Your task to perform on an android device: What's the weather going to be tomorrow? Image 0: 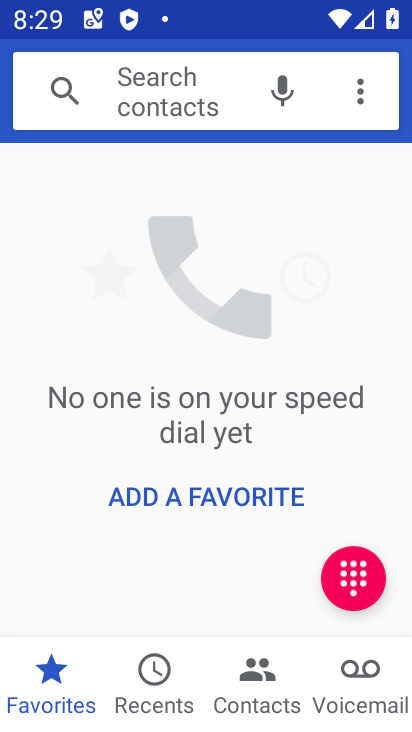
Step 0: press home button
Your task to perform on an android device: What's the weather going to be tomorrow? Image 1: 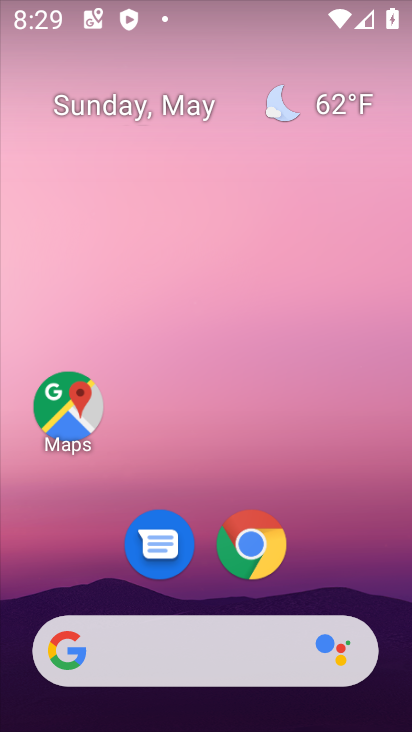
Step 1: drag from (283, 587) to (335, 22)
Your task to perform on an android device: What's the weather going to be tomorrow? Image 2: 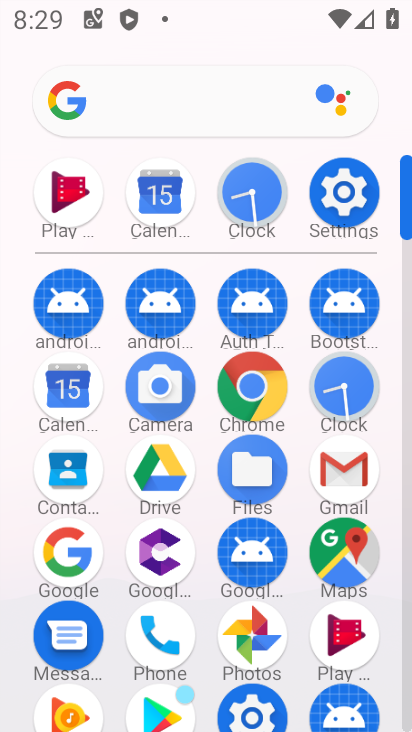
Step 2: click (76, 560)
Your task to perform on an android device: What's the weather going to be tomorrow? Image 3: 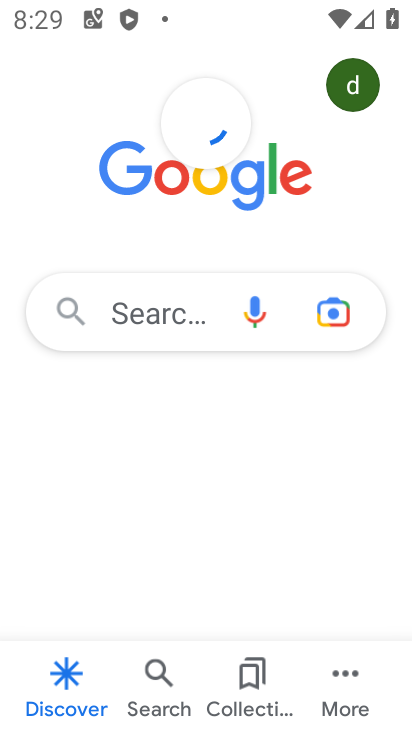
Step 3: click (163, 258)
Your task to perform on an android device: What's the weather going to be tomorrow? Image 4: 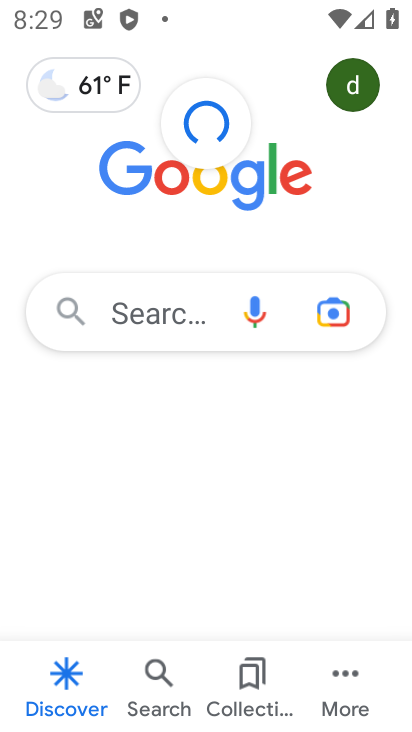
Step 4: click (156, 327)
Your task to perform on an android device: What's the weather going to be tomorrow? Image 5: 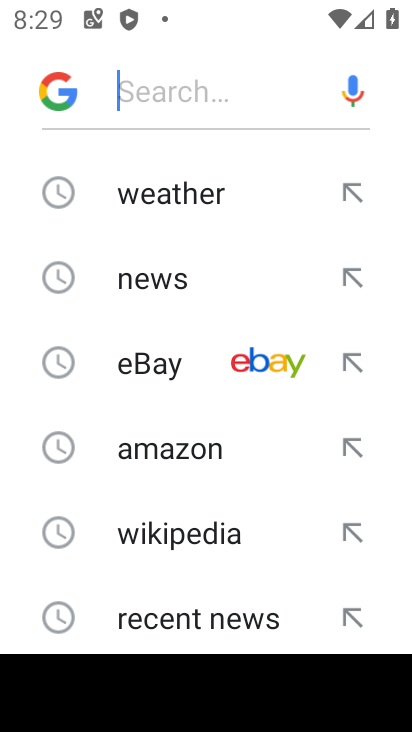
Step 5: click (160, 217)
Your task to perform on an android device: What's the weather going to be tomorrow? Image 6: 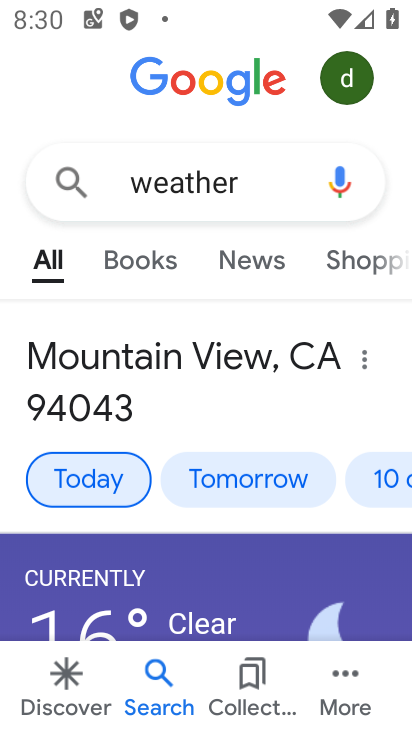
Step 6: click (244, 481)
Your task to perform on an android device: What's the weather going to be tomorrow? Image 7: 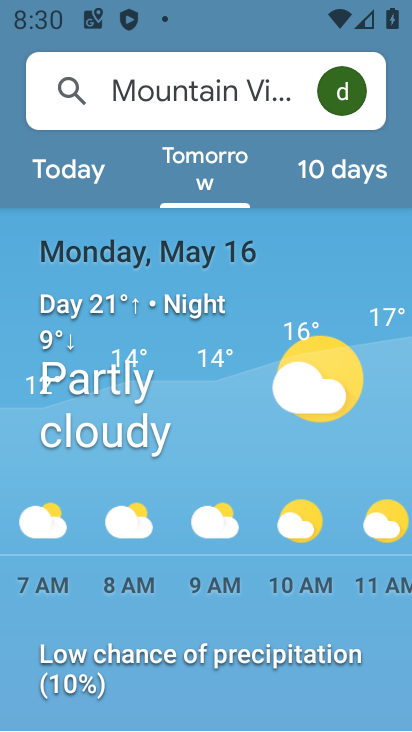
Step 7: task complete